Your task to perform on an android device: Search for seafood restaurants on Google Maps Image 0: 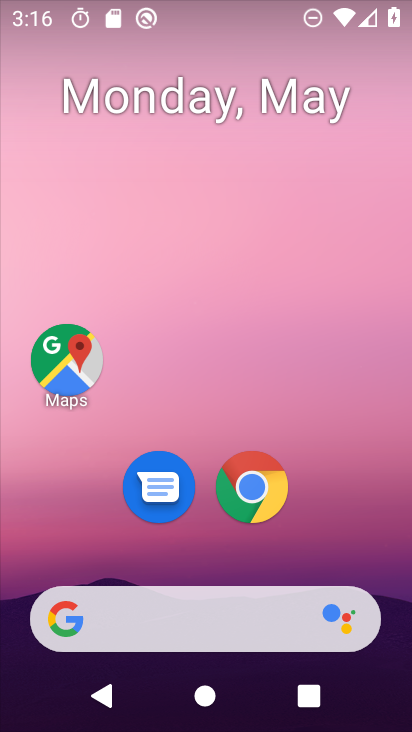
Step 0: click (79, 365)
Your task to perform on an android device: Search for seafood restaurants on Google Maps Image 1: 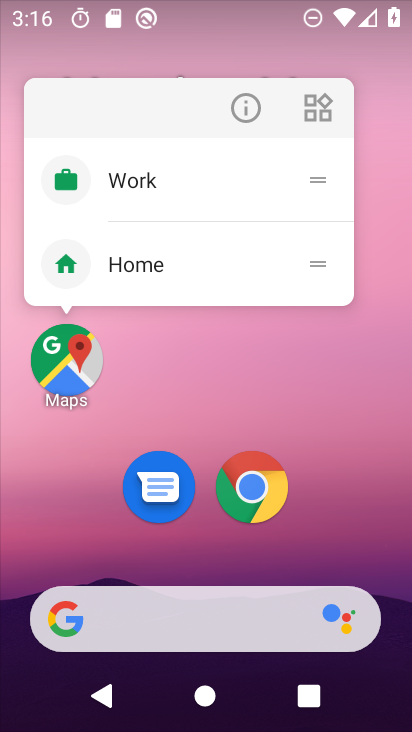
Step 1: click (77, 367)
Your task to perform on an android device: Search for seafood restaurants on Google Maps Image 2: 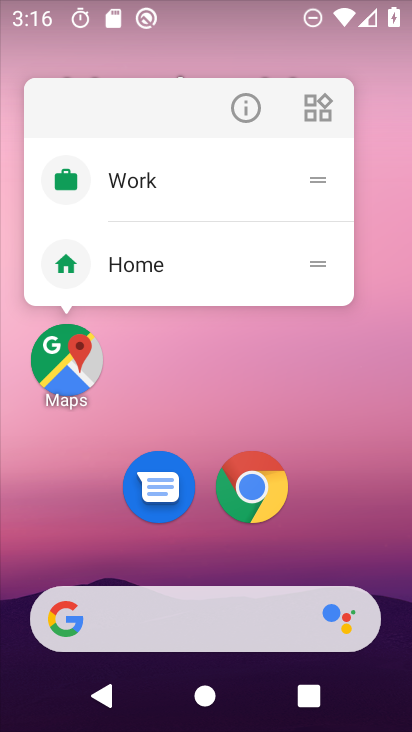
Step 2: click (77, 368)
Your task to perform on an android device: Search for seafood restaurants on Google Maps Image 3: 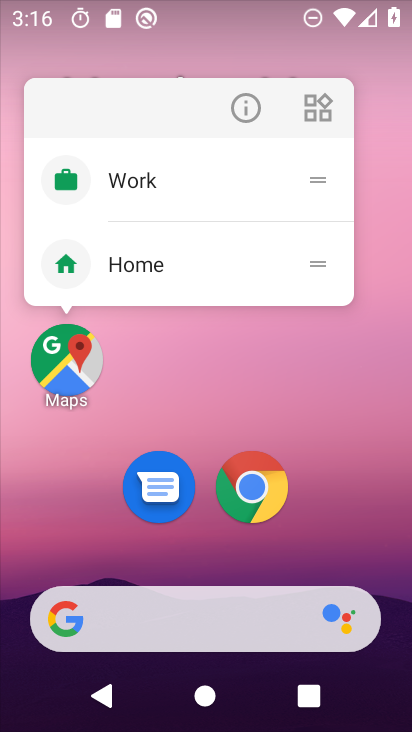
Step 3: click (76, 369)
Your task to perform on an android device: Search for seafood restaurants on Google Maps Image 4: 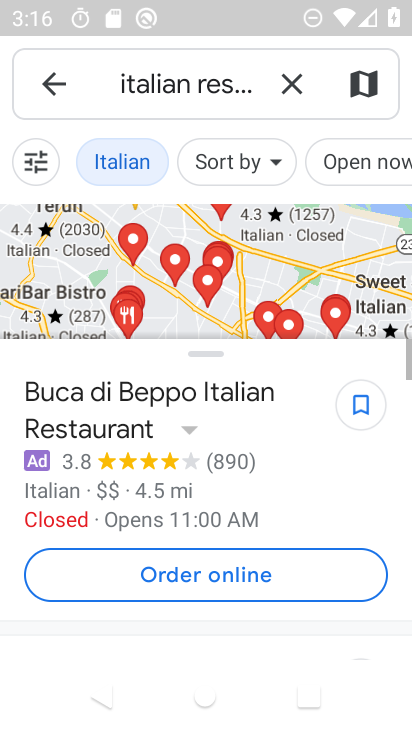
Step 4: click (169, 79)
Your task to perform on an android device: Search for seafood restaurants on Google Maps Image 5: 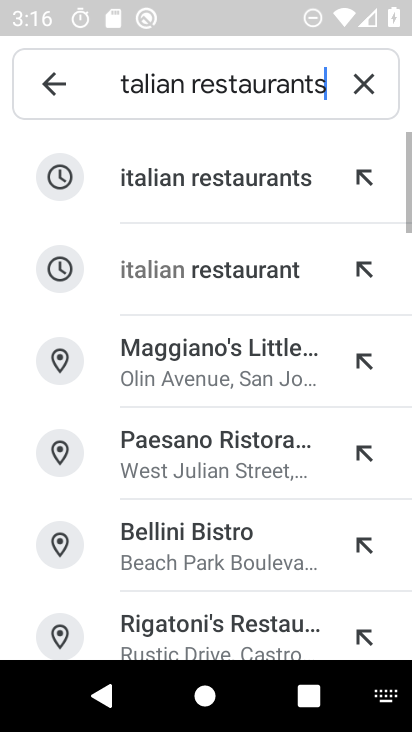
Step 5: click (356, 81)
Your task to perform on an android device: Search for seafood restaurants on Google Maps Image 6: 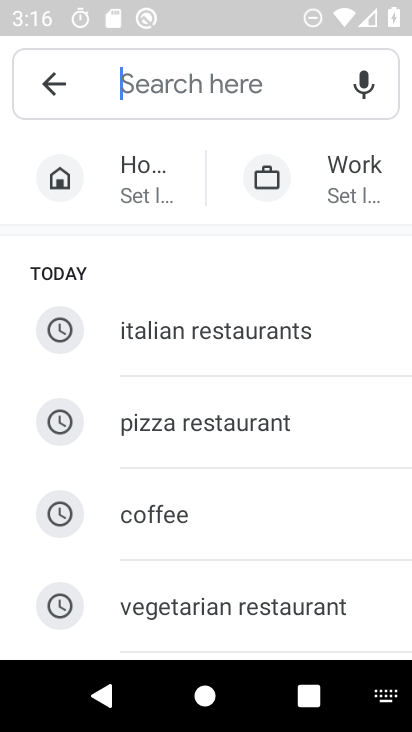
Step 6: type "seafood restaurants"
Your task to perform on an android device: Search for seafood restaurants on Google Maps Image 7: 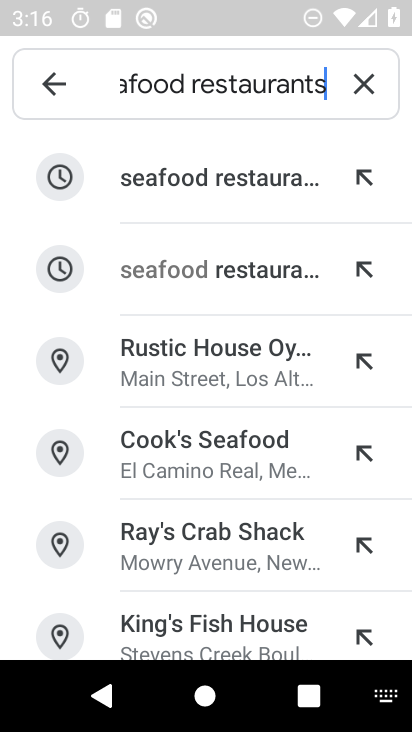
Step 7: click (207, 188)
Your task to perform on an android device: Search for seafood restaurants on Google Maps Image 8: 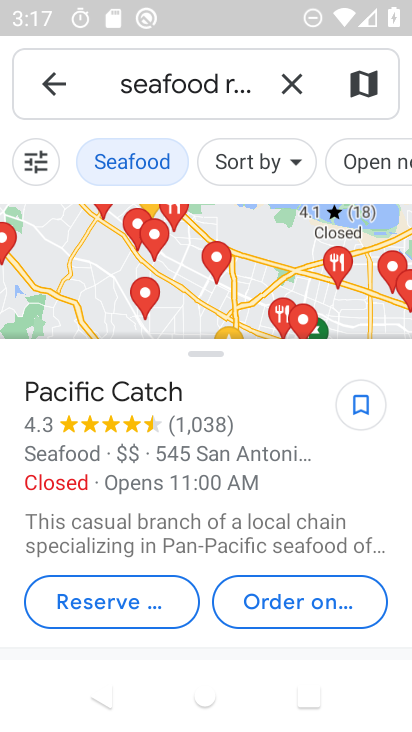
Step 8: task complete